Your task to perform on an android device: Open CNN.com Image 0: 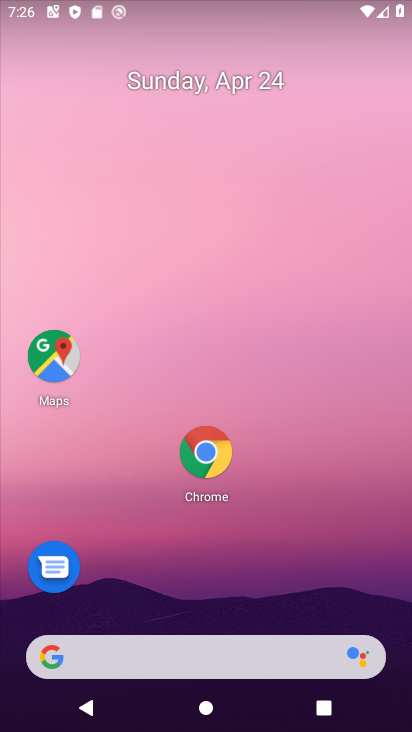
Step 0: drag from (310, 489) to (203, 10)
Your task to perform on an android device: Open CNN.com Image 1: 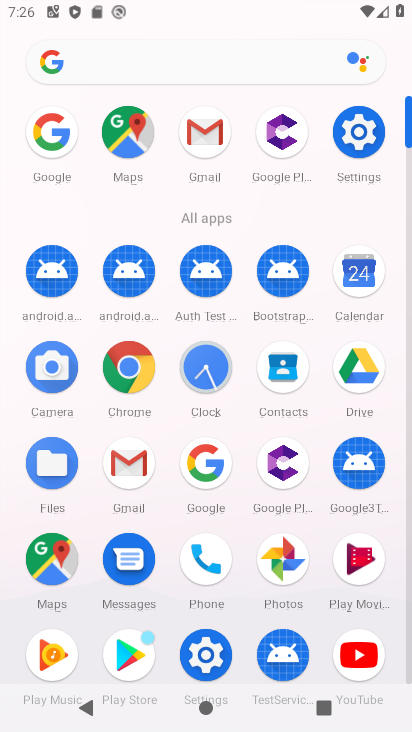
Step 1: click (131, 385)
Your task to perform on an android device: Open CNN.com Image 2: 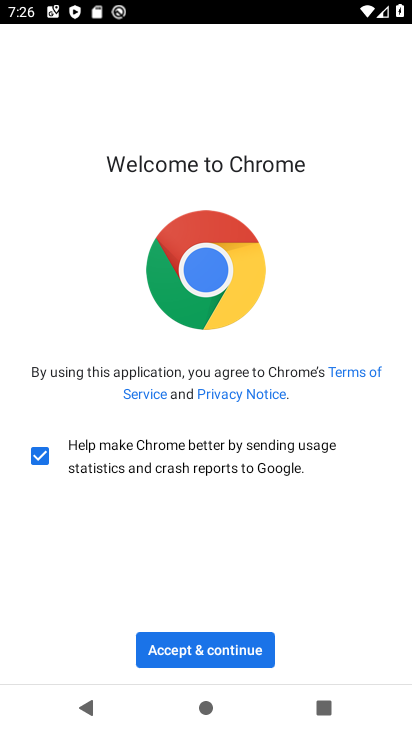
Step 2: click (209, 642)
Your task to perform on an android device: Open CNN.com Image 3: 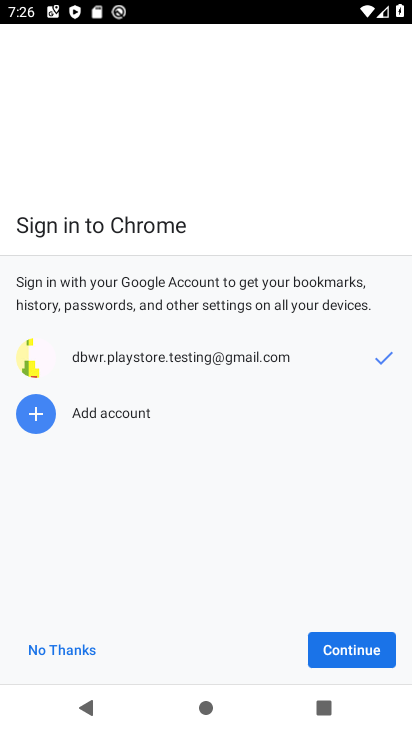
Step 3: click (72, 655)
Your task to perform on an android device: Open CNN.com Image 4: 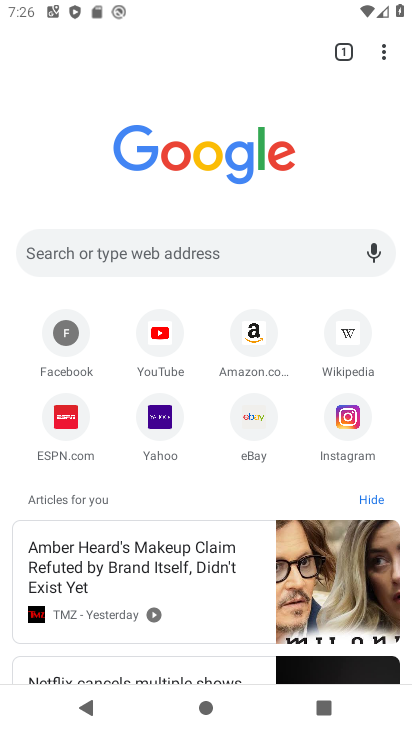
Step 4: drag from (188, 565) to (203, 439)
Your task to perform on an android device: Open CNN.com Image 5: 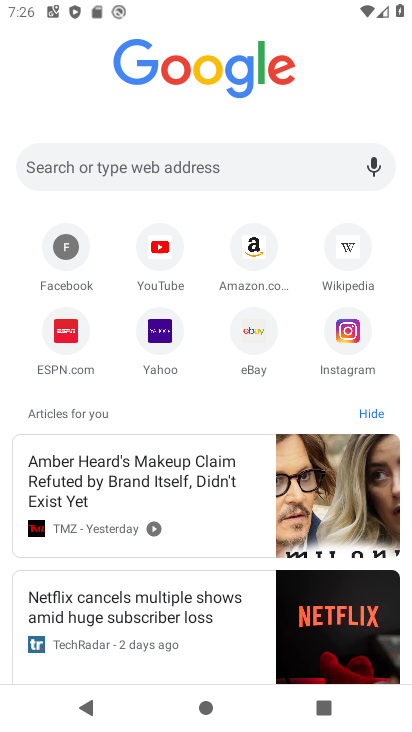
Step 5: click (131, 156)
Your task to perform on an android device: Open CNN.com Image 6: 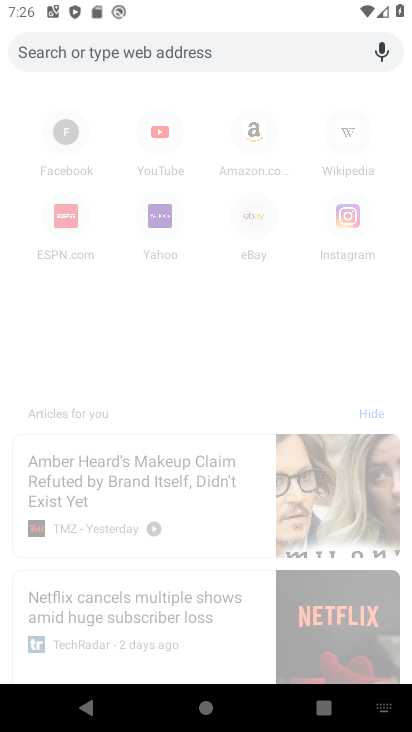
Step 6: type "cnn.com"
Your task to perform on an android device: Open CNN.com Image 7: 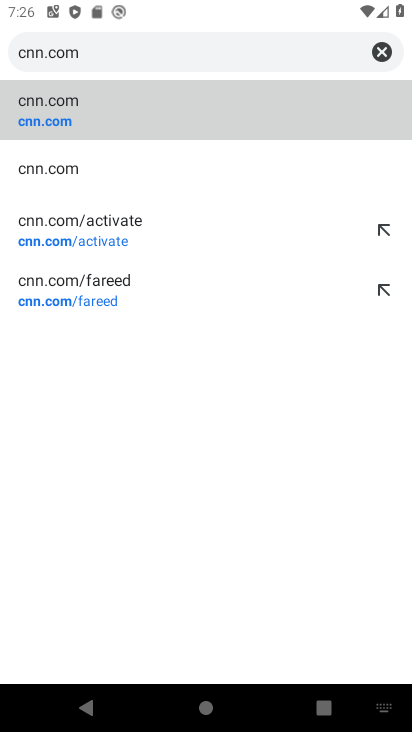
Step 7: click (36, 115)
Your task to perform on an android device: Open CNN.com Image 8: 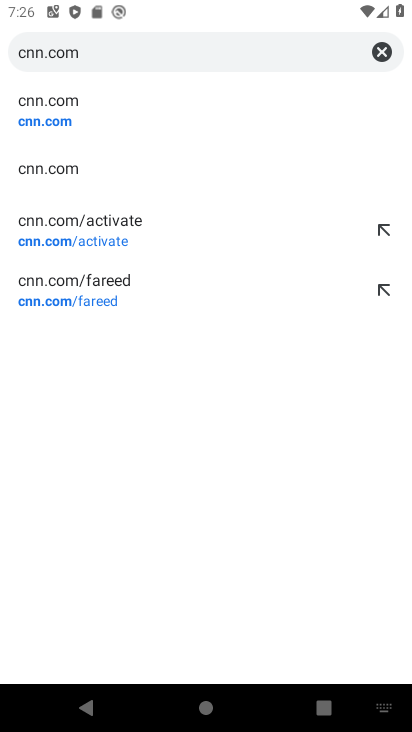
Step 8: click (36, 114)
Your task to perform on an android device: Open CNN.com Image 9: 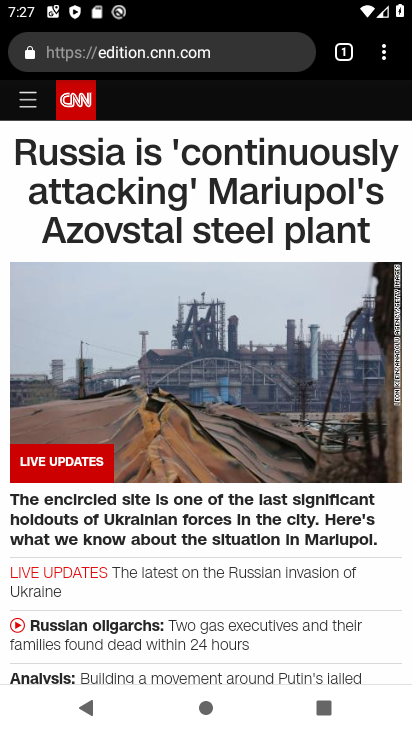
Step 9: task complete